Your task to perform on an android device: Open display settings Image 0: 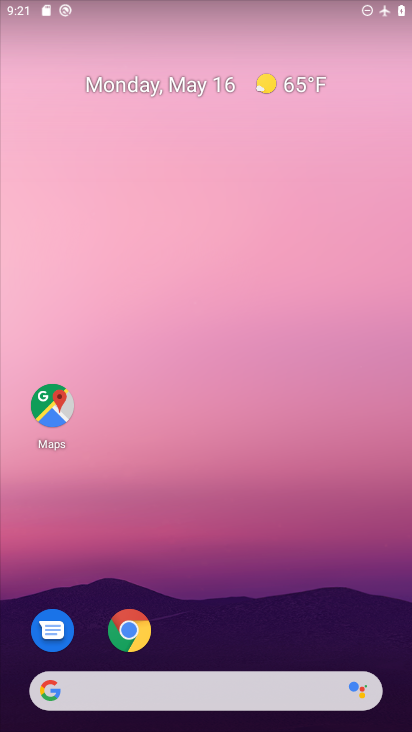
Step 0: drag from (232, 655) to (250, 192)
Your task to perform on an android device: Open display settings Image 1: 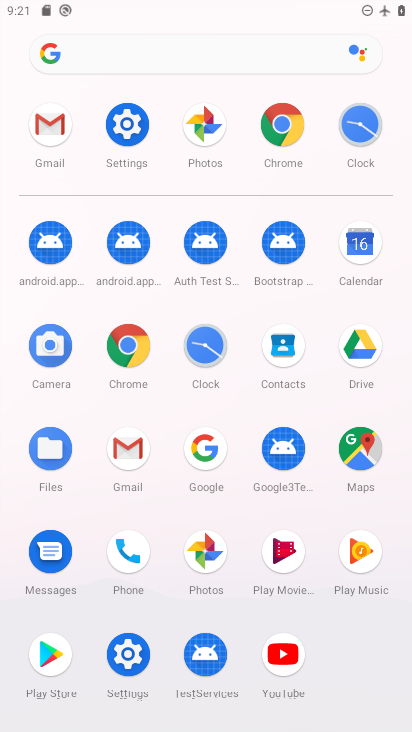
Step 1: click (121, 124)
Your task to perform on an android device: Open display settings Image 2: 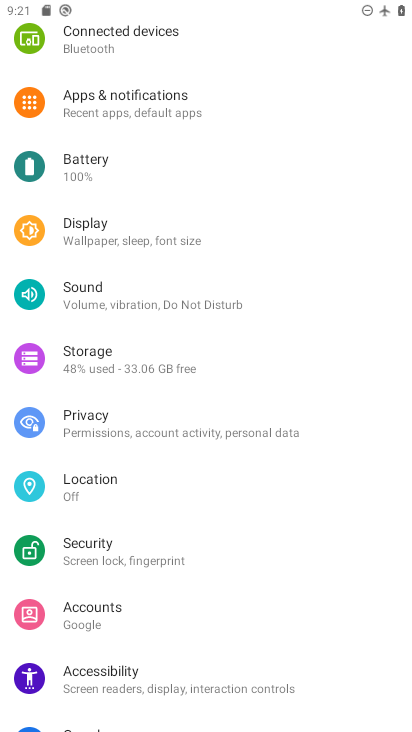
Step 2: click (126, 232)
Your task to perform on an android device: Open display settings Image 3: 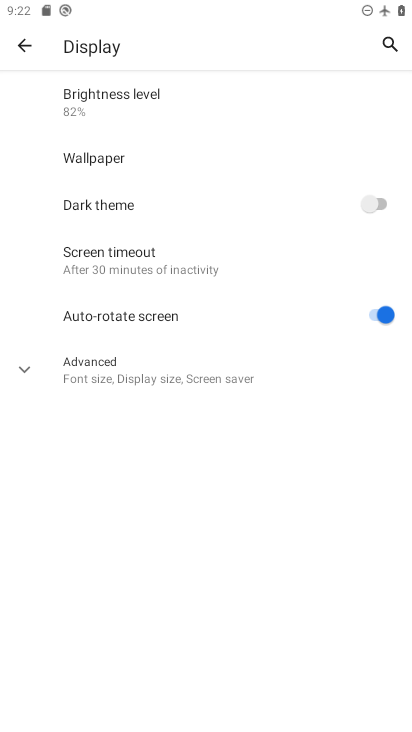
Step 3: task complete